Your task to perform on an android device: open app "Expedia: Hotels, Flights & Car" (install if not already installed), go to login, and select forgot password Image 0: 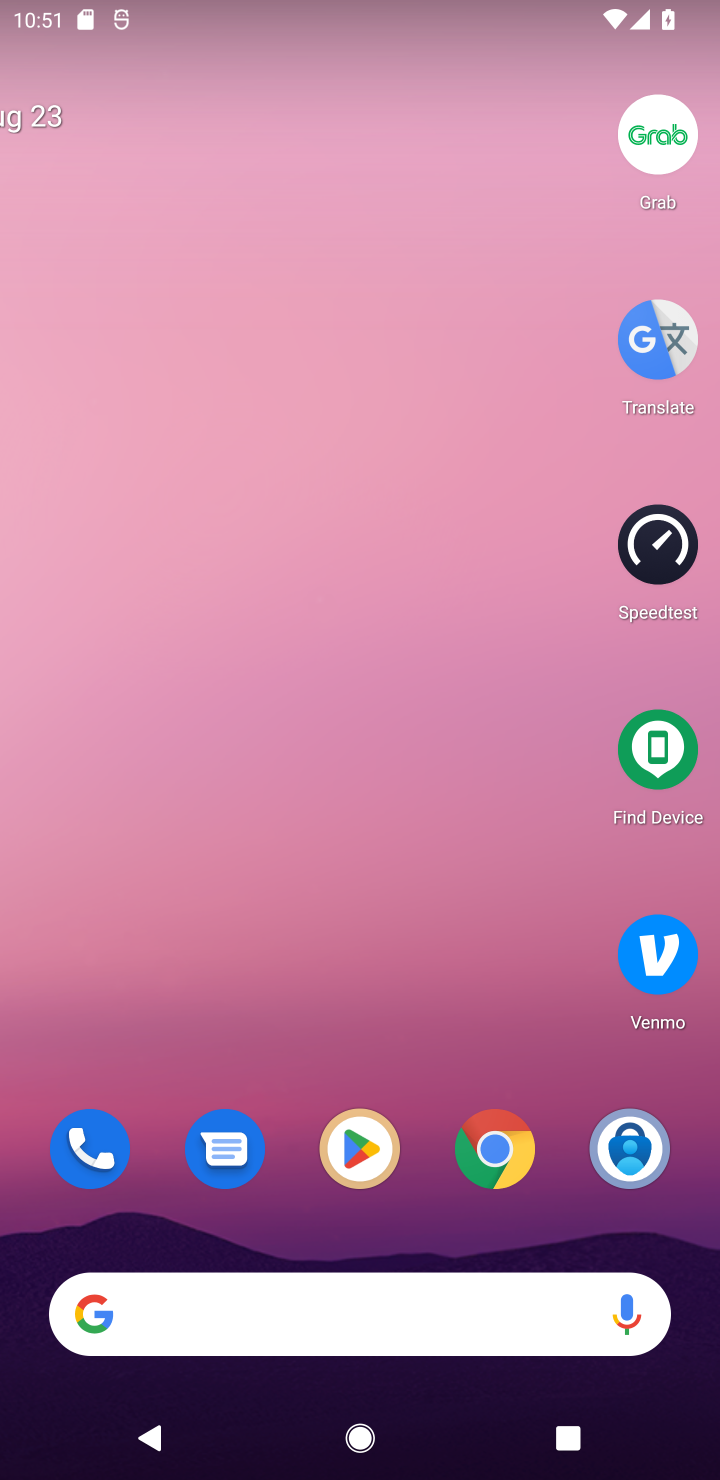
Step 0: press home button
Your task to perform on an android device: open app "Expedia: Hotels, Flights & Car" (install if not already installed), go to login, and select forgot password Image 1: 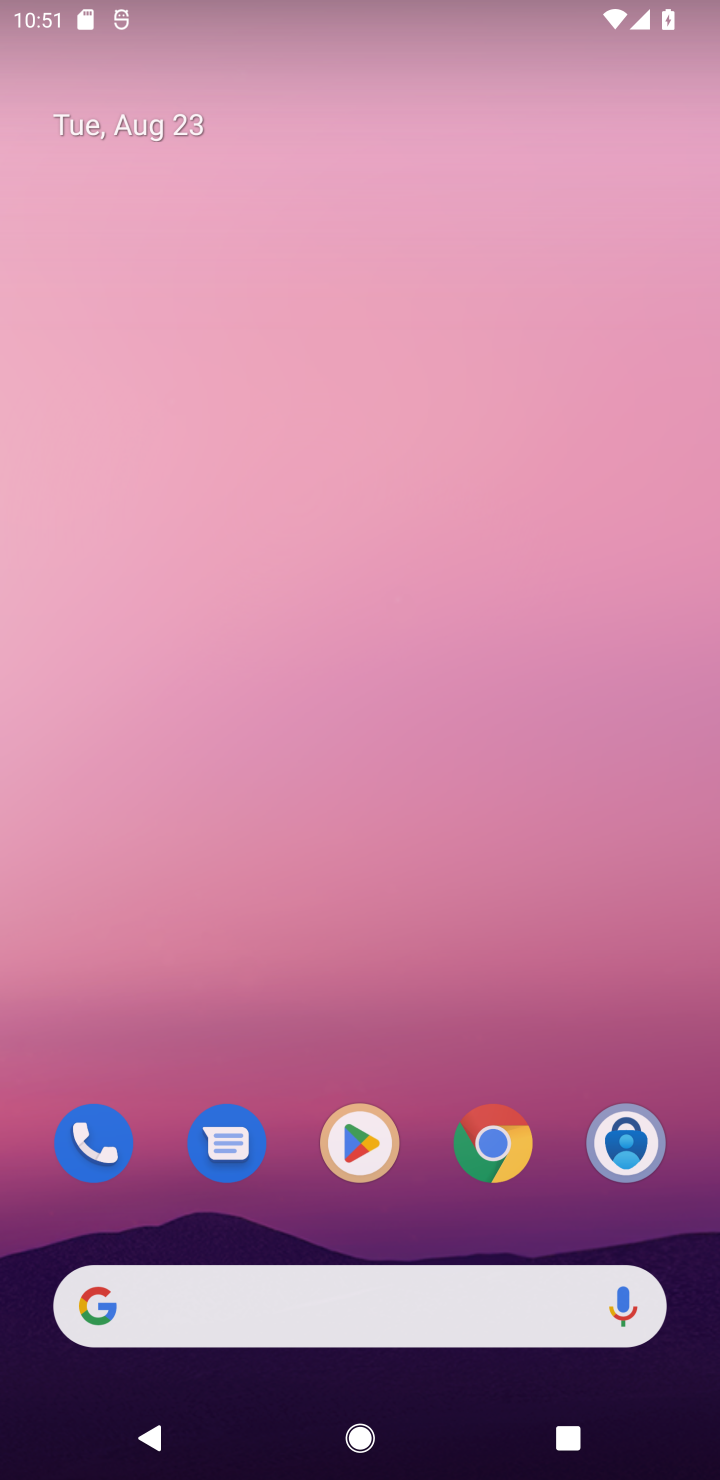
Step 1: click (335, 1174)
Your task to perform on an android device: open app "Expedia: Hotels, Flights & Car" (install if not already installed), go to login, and select forgot password Image 2: 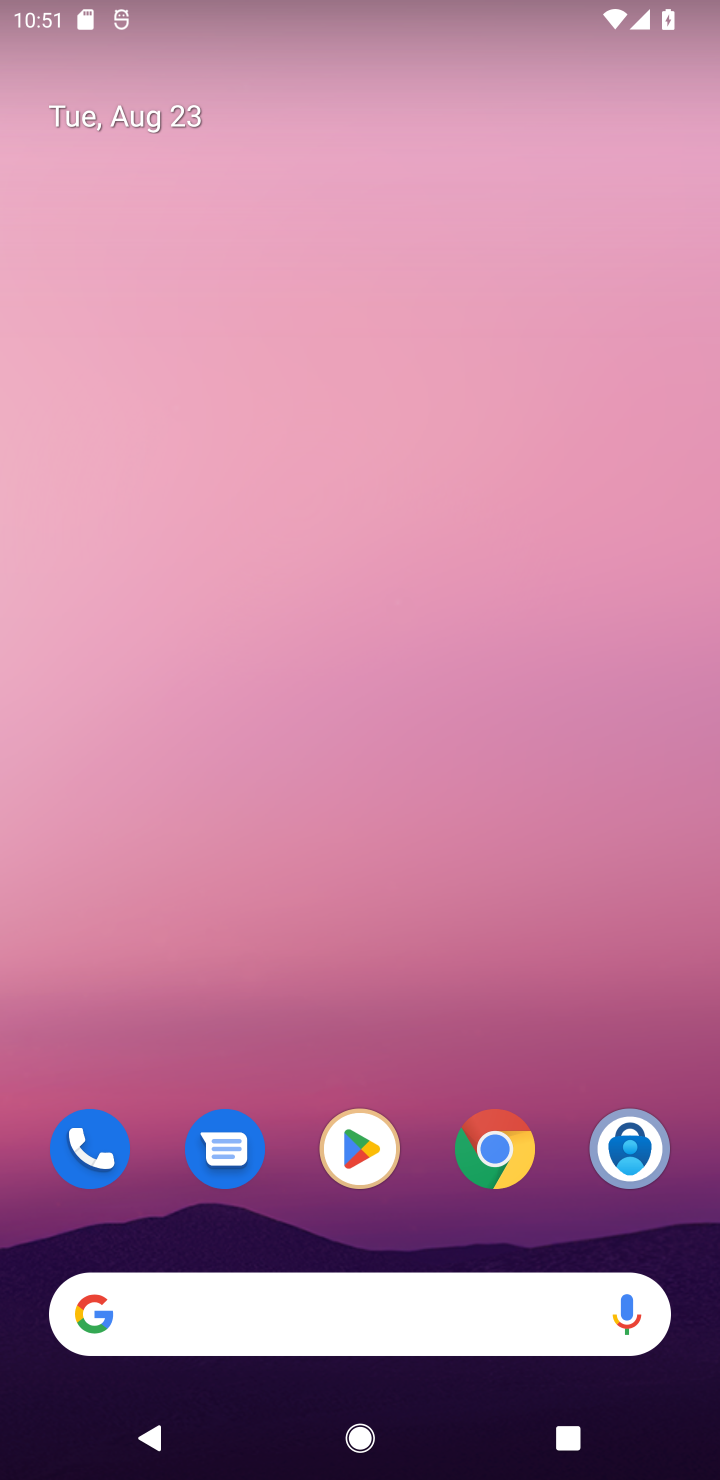
Step 2: click (404, 1109)
Your task to perform on an android device: open app "Expedia: Hotels, Flights & Car" (install if not already installed), go to login, and select forgot password Image 3: 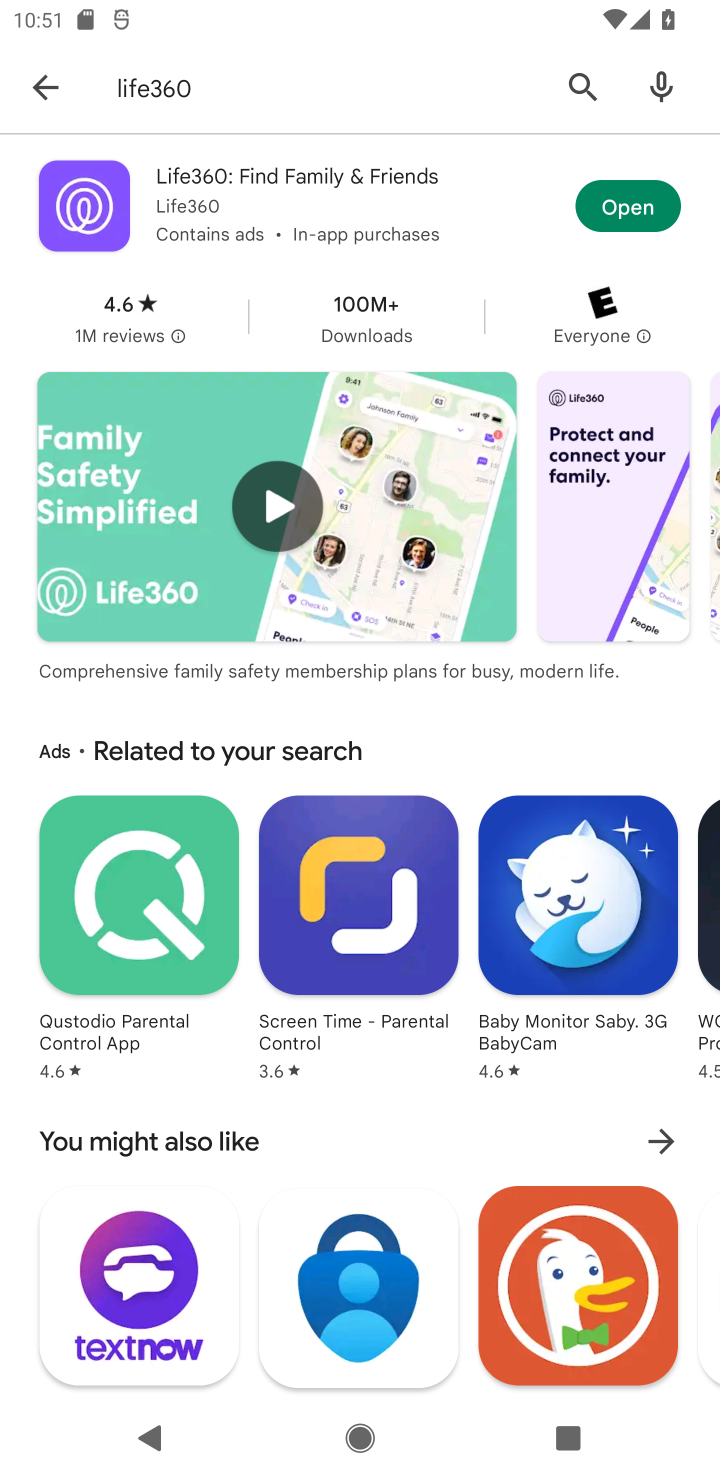
Step 3: click (589, 108)
Your task to perform on an android device: open app "Expedia: Hotels, Flights & Car" (install if not already installed), go to login, and select forgot password Image 4: 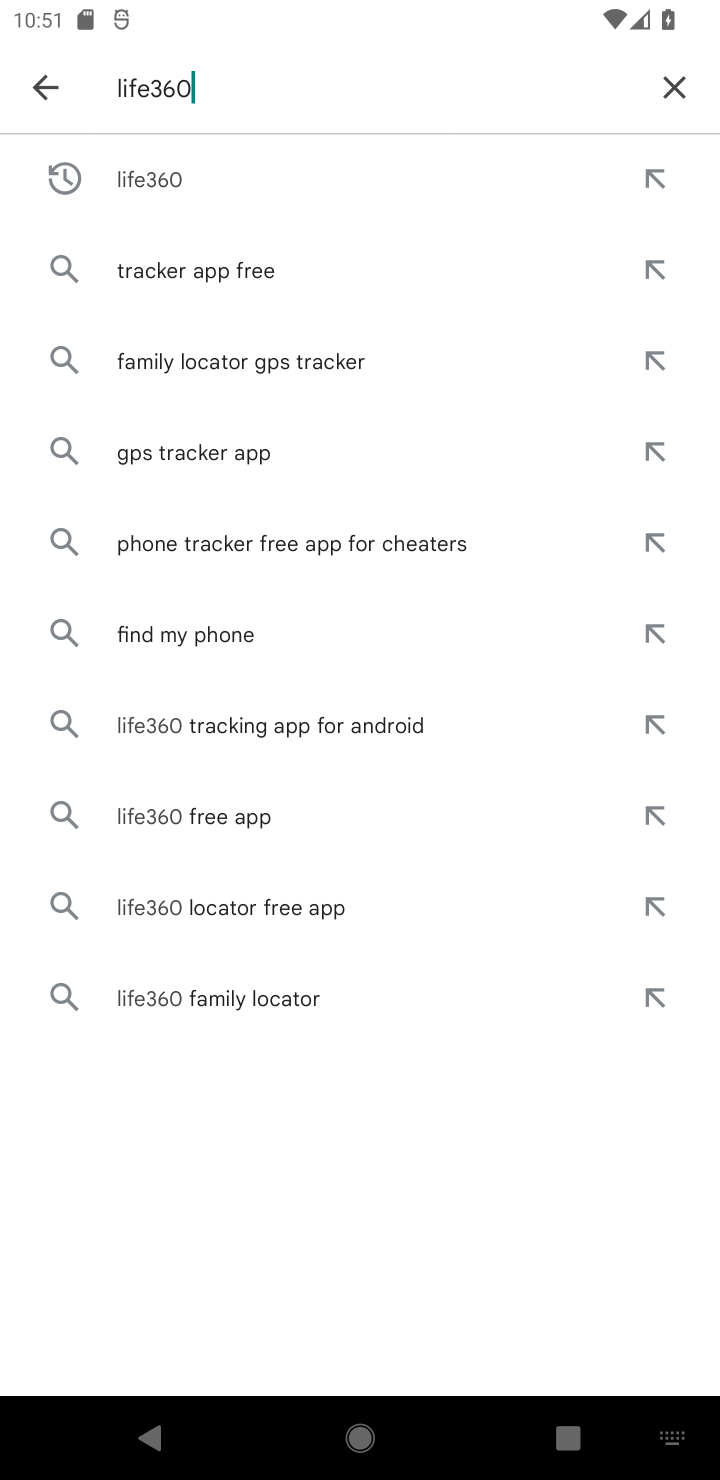
Step 4: click (664, 84)
Your task to perform on an android device: open app "Expedia: Hotels, Flights & Car" (install if not already installed), go to login, and select forgot password Image 5: 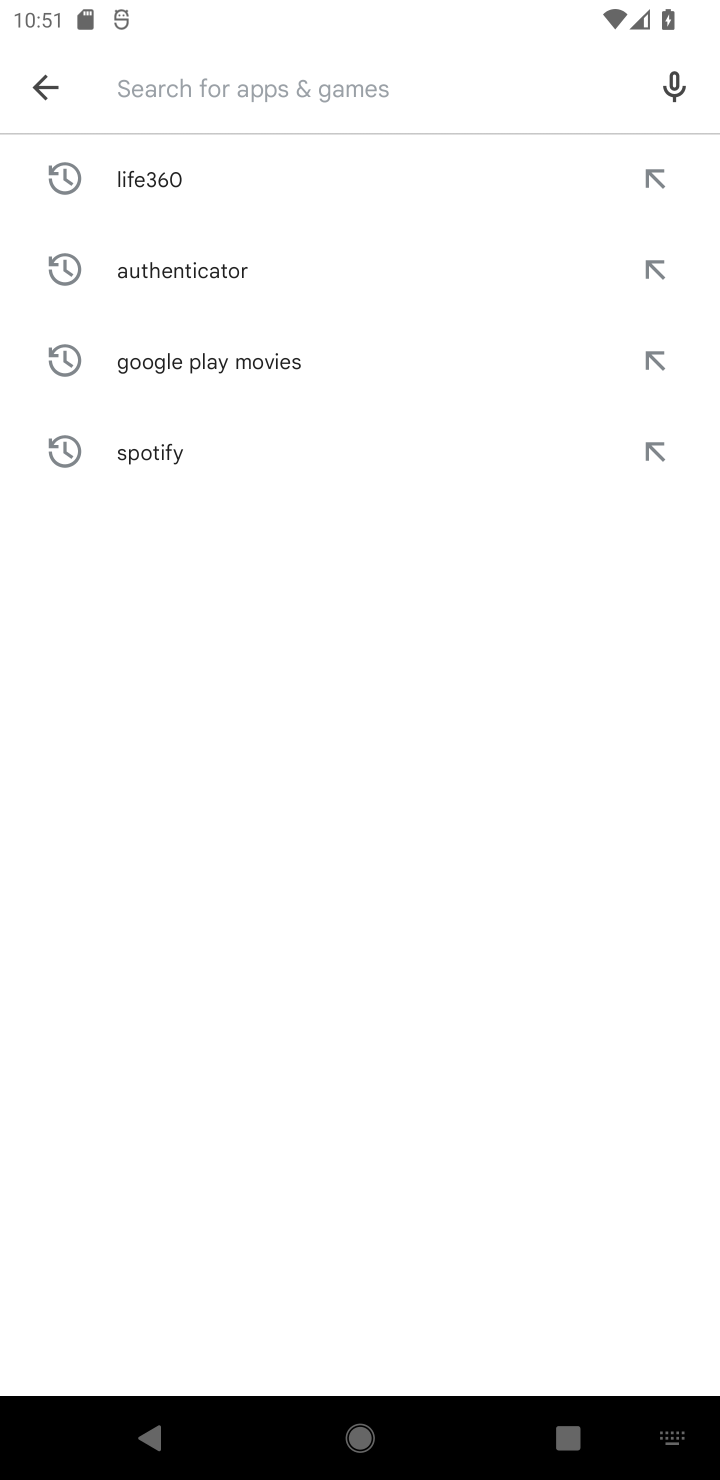
Step 5: type "expedia"
Your task to perform on an android device: open app "Expedia: Hotels, Flights & Car" (install if not already installed), go to login, and select forgot password Image 6: 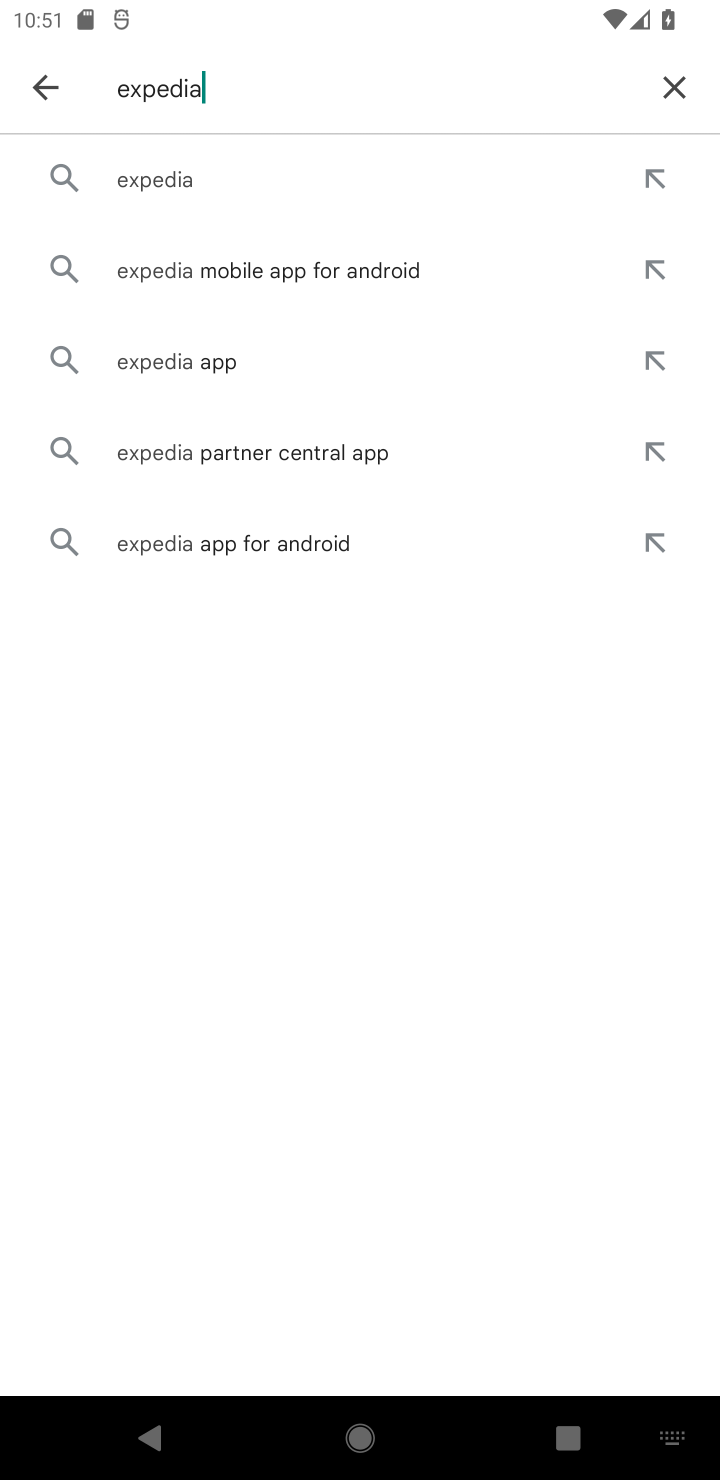
Step 6: click (385, 157)
Your task to perform on an android device: open app "Expedia: Hotels, Flights & Car" (install if not already installed), go to login, and select forgot password Image 7: 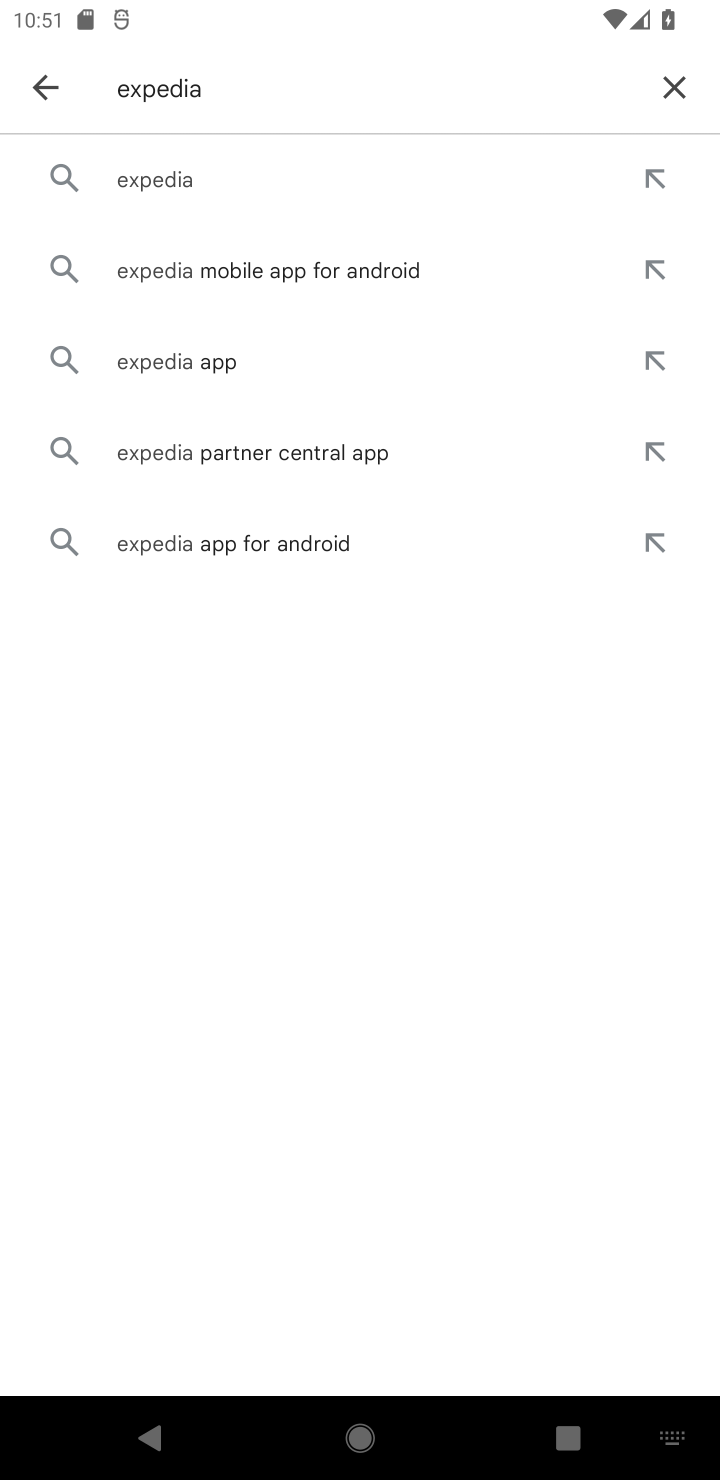
Step 7: click (385, 157)
Your task to perform on an android device: open app "Expedia: Hotels, Flights & Car" (install if not already installed), go to login, and select forgot password Image 8: 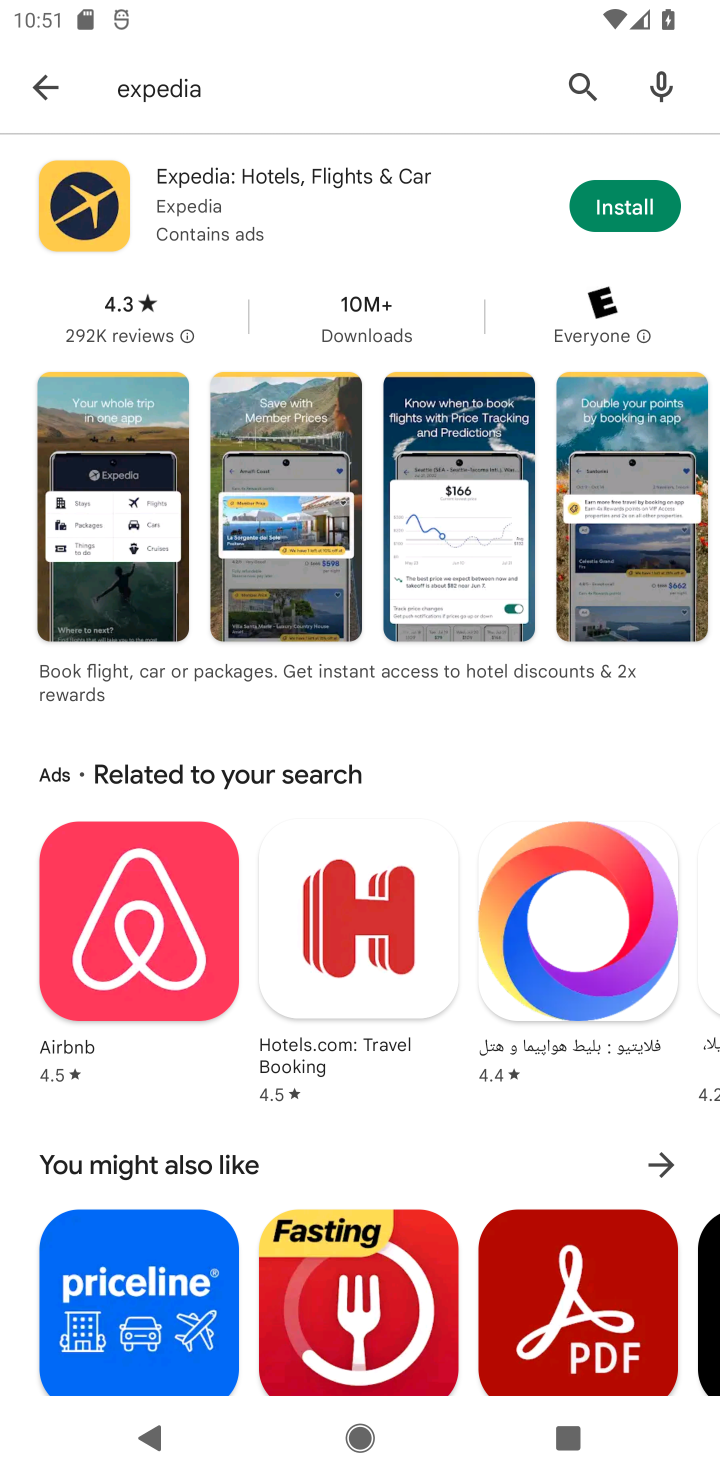
Step 8: click (650, 205)
Your task to perform on an android device: open app "Expedia: Hotels, Flights & Car" (install if not already installed), go to login, and select forgot password Image 9: 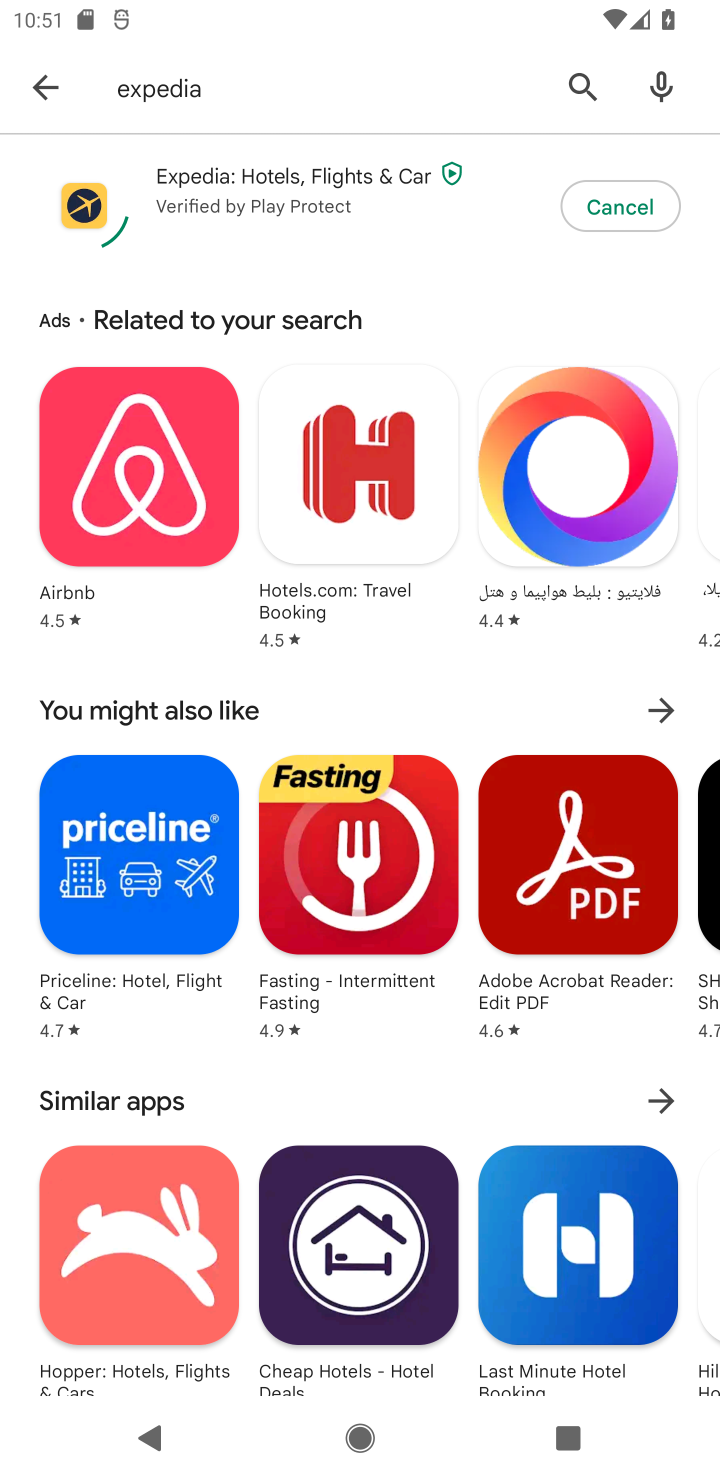
Step 9: task complete